Your task to perform on an android device: Do I have any events tomorrow? Image 0: 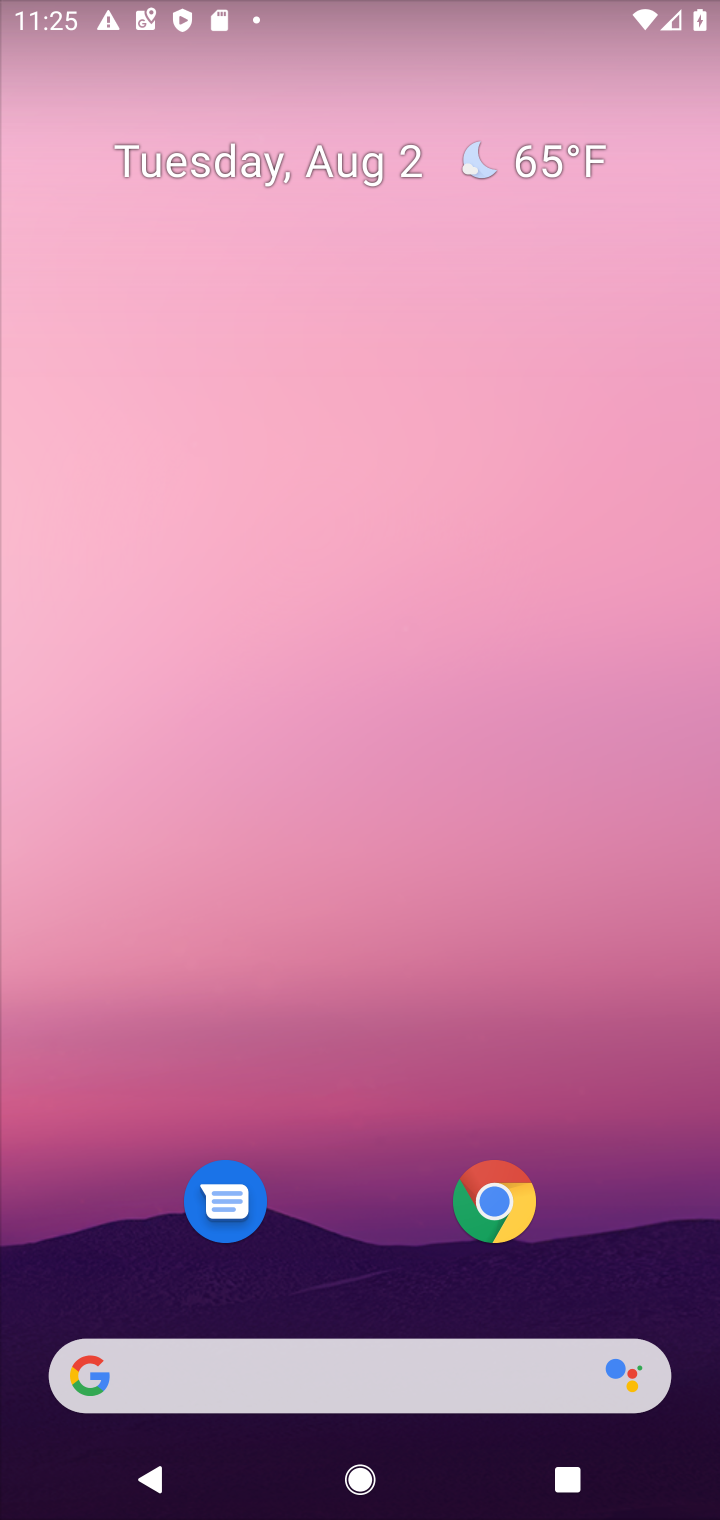
Step 0: drag from (349, 1277) to (394, 11)
Your task to perform on an android device: Do I have any events tomorrow? Image 1: 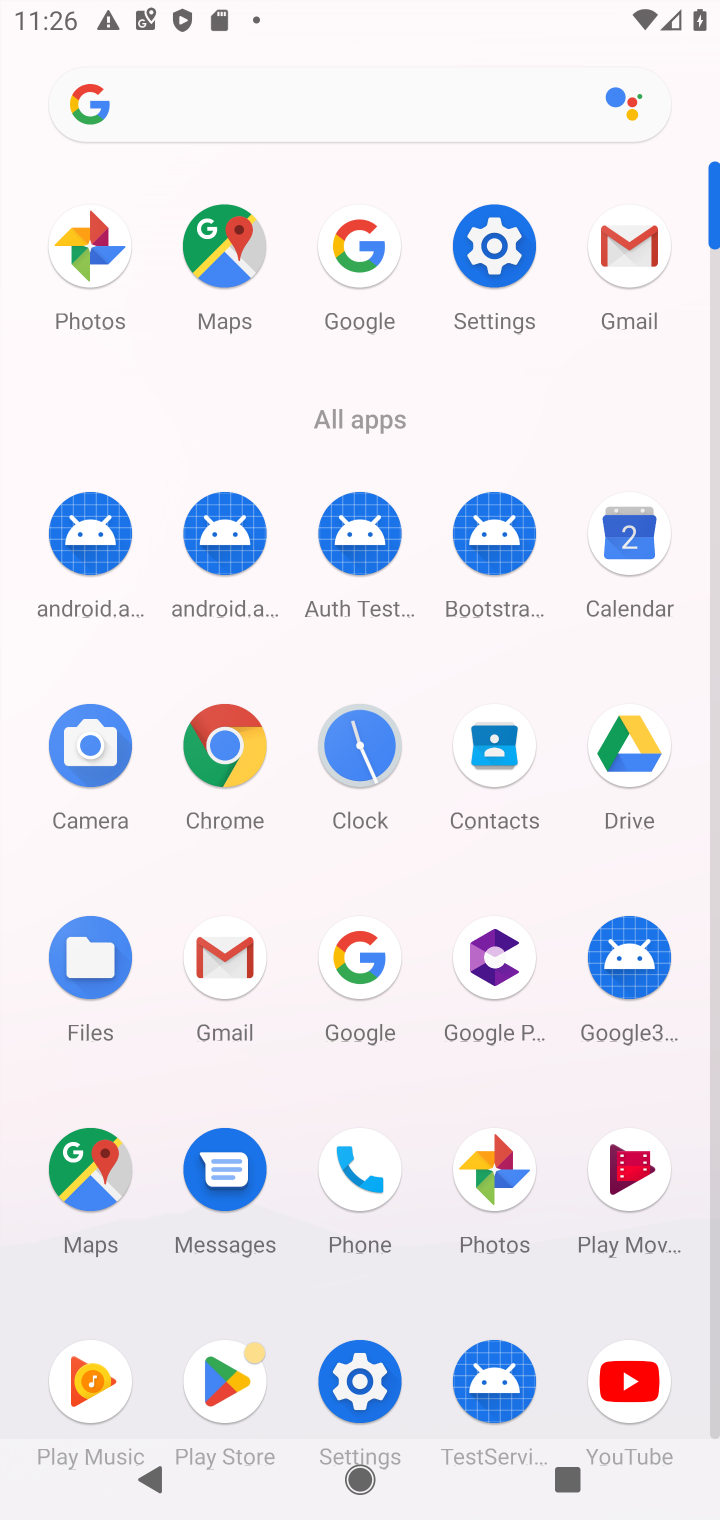
Step 1: click (617, 523)
Your task to perform on an android device: Do I have any events tomorrow? Image 2: 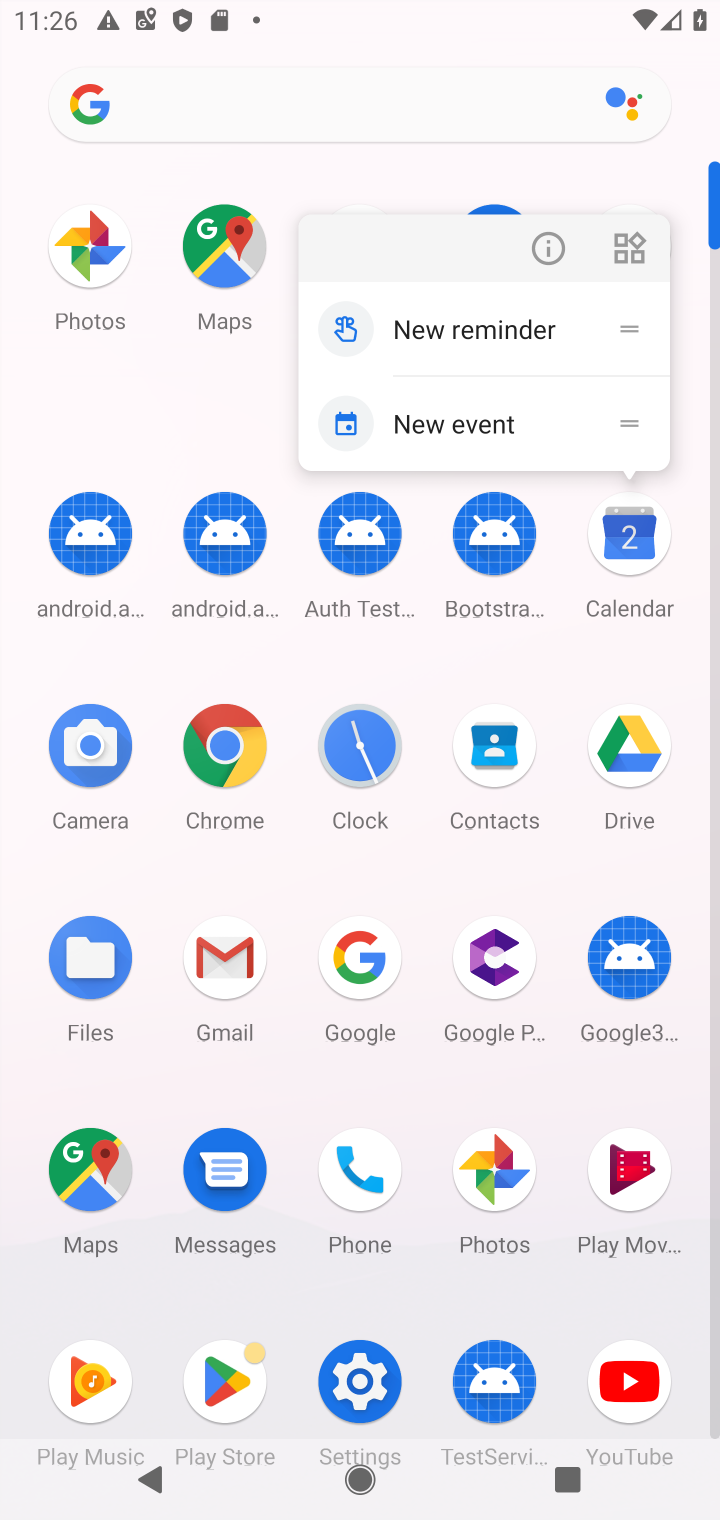
Step 2: click (629, 578)
Your task to perform on an android device: Do I have any events tomorrow? Image 3: 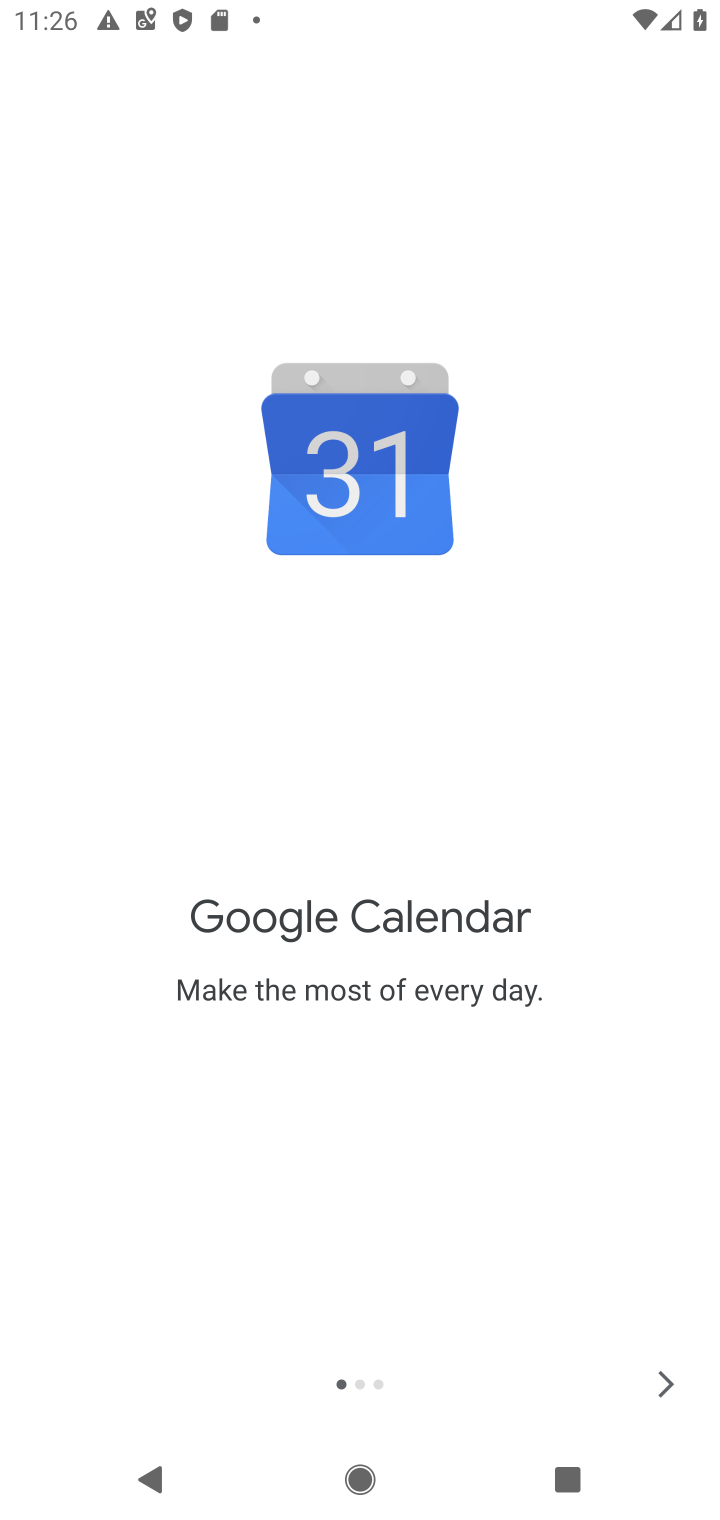
Step 3: click (652, 1390)
Your task to perform on an android device: Do I have any events tomorrow? Image 4: 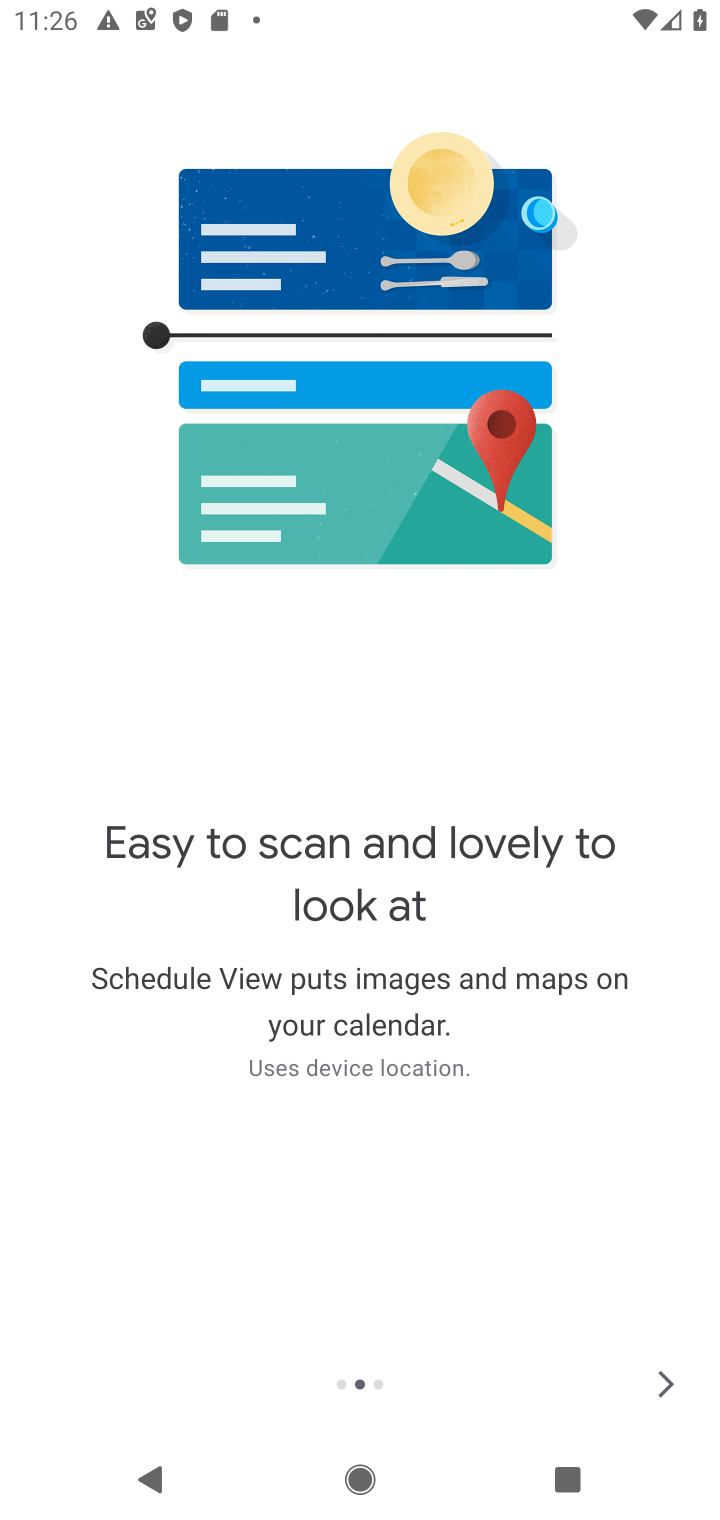
Step 4: click (652, 1374)
Your task to perform on an android device: Do I have any events tomorrow? Image 5: 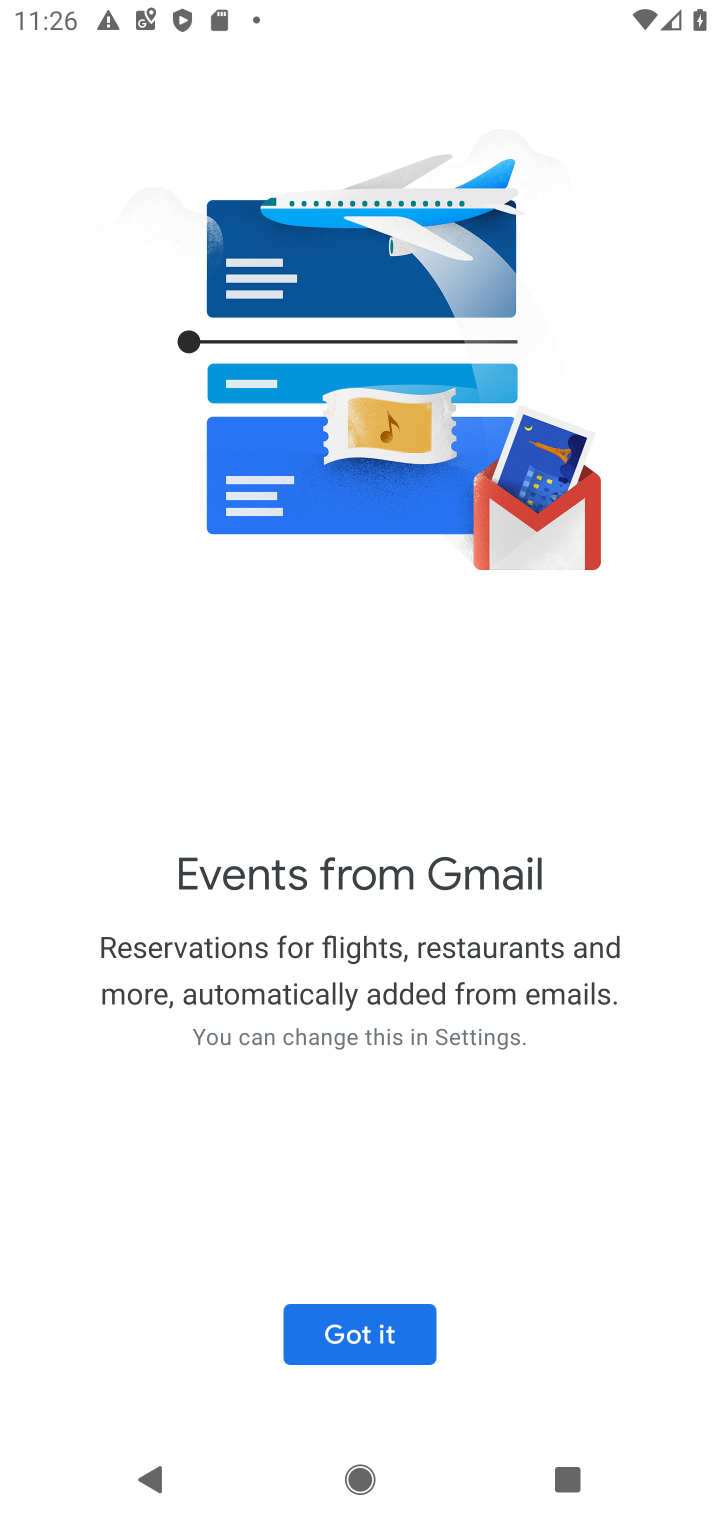
Step 5: click (326, 1330)
Your task to perform on an android device: Do I have any events tomorrow? Image 6: 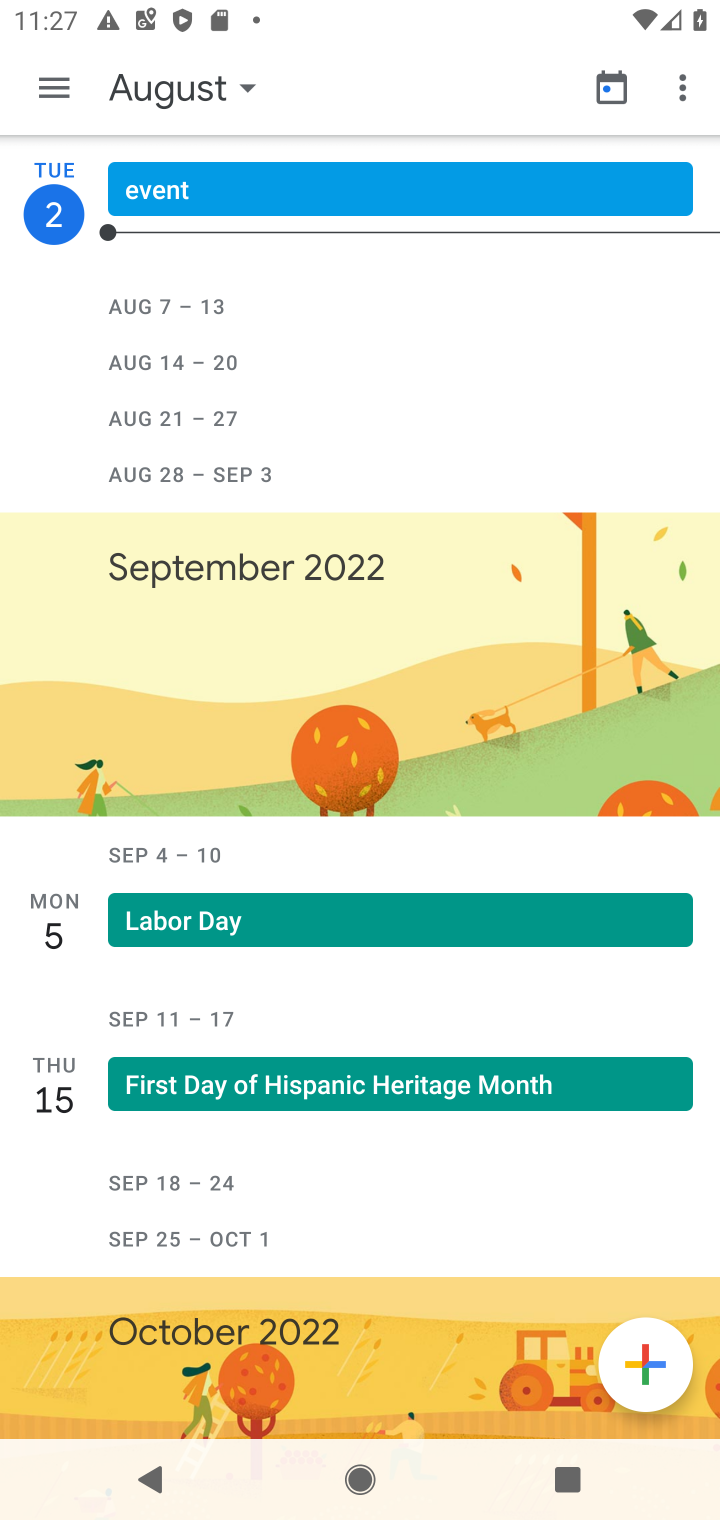
Step 6: click (42, 88)
Your task to perform on an android device: Do I have any events tomorrow? Image 7: 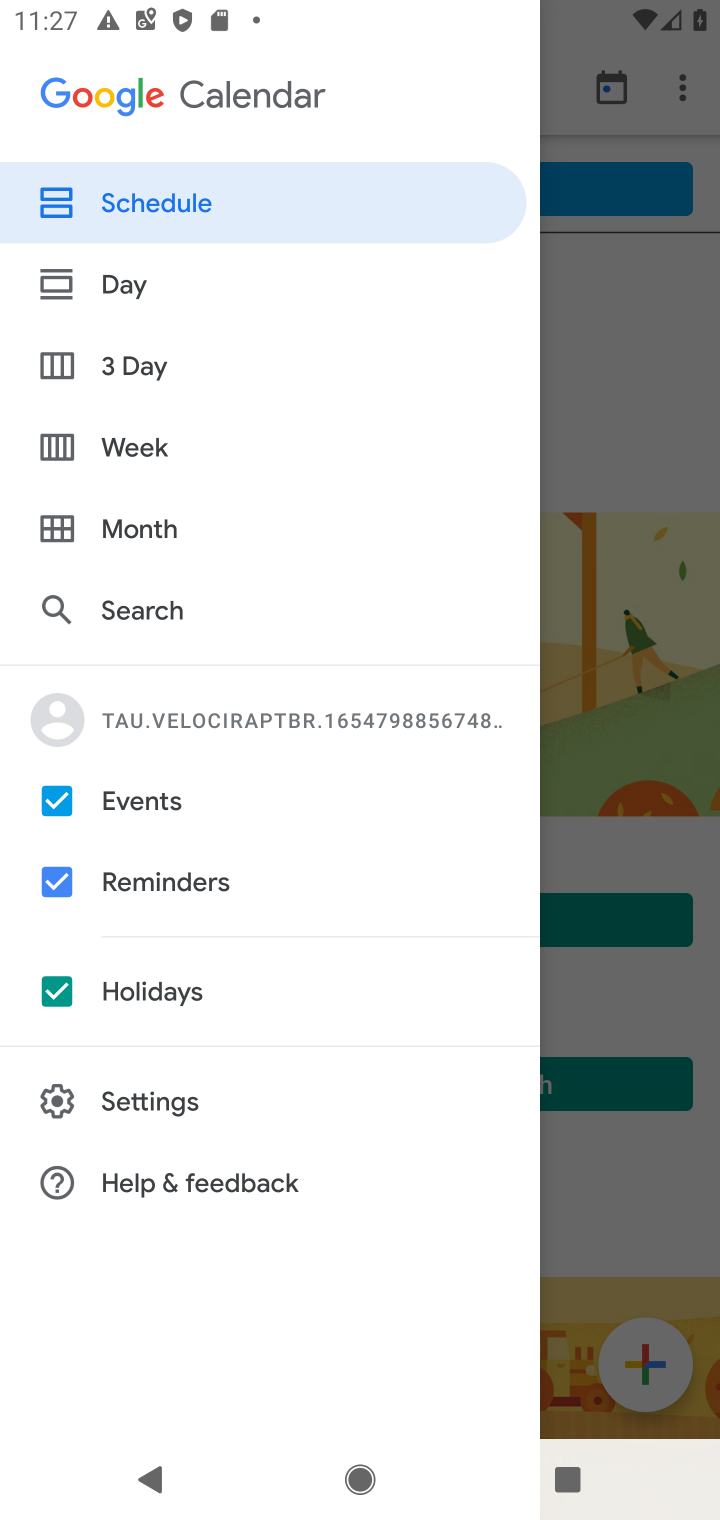
Step 7: click (180, 445)
Your task to perform on an android device: Do I have any events tomorrow? Image 8: 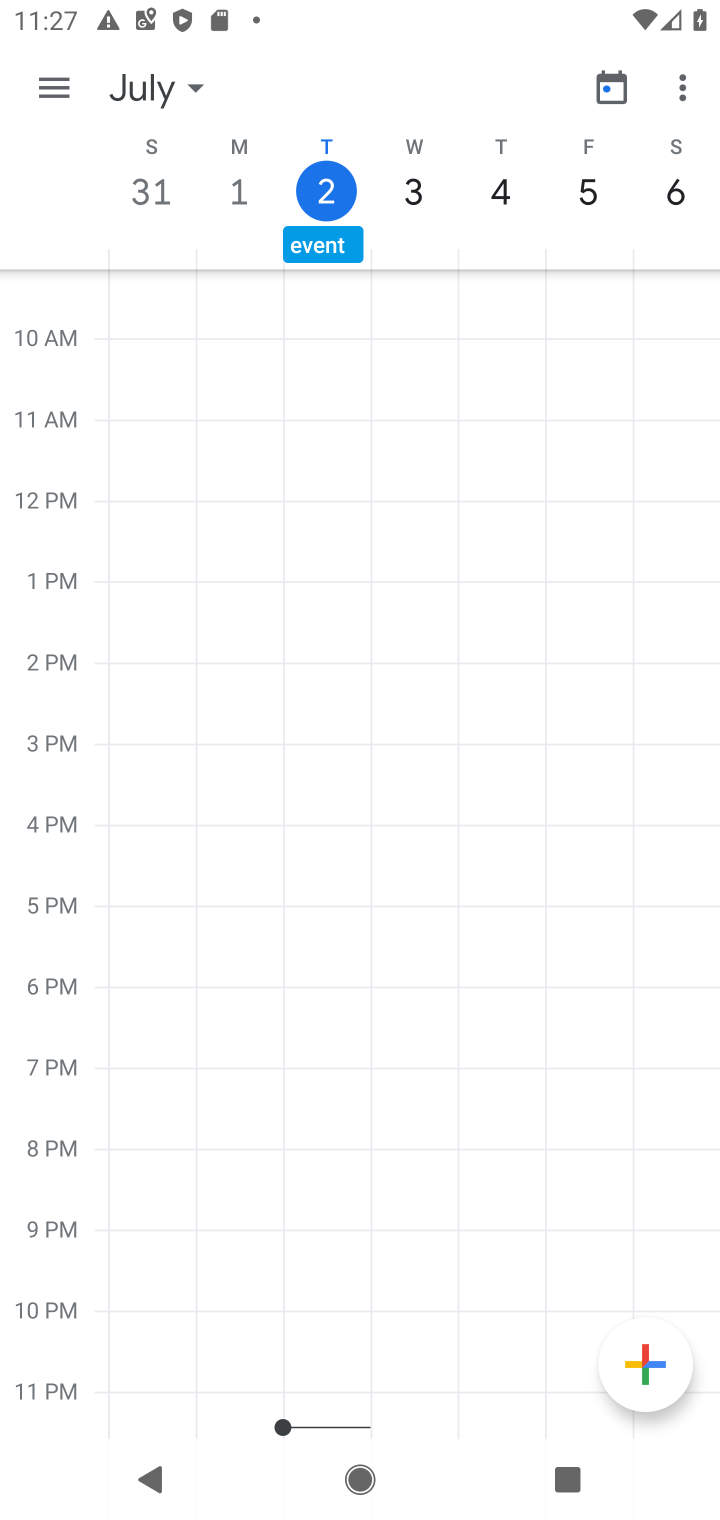
Step 8: click (396, 179)
Your task to perform on an android device: Do I have any events tomorrow? Image 9: 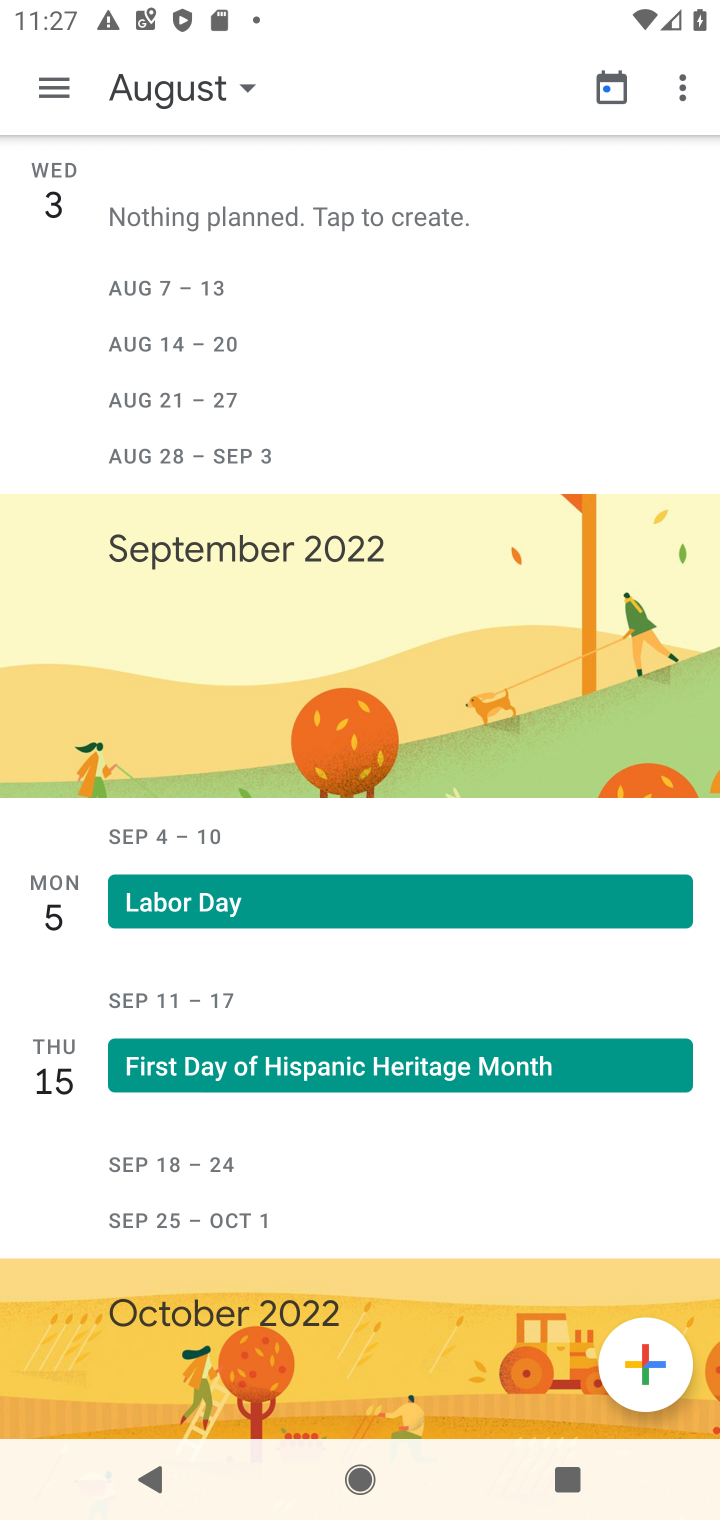
Step 9: task complete